Your task to perform on an android device: Open calendar and show me the second week of next month Image 0: 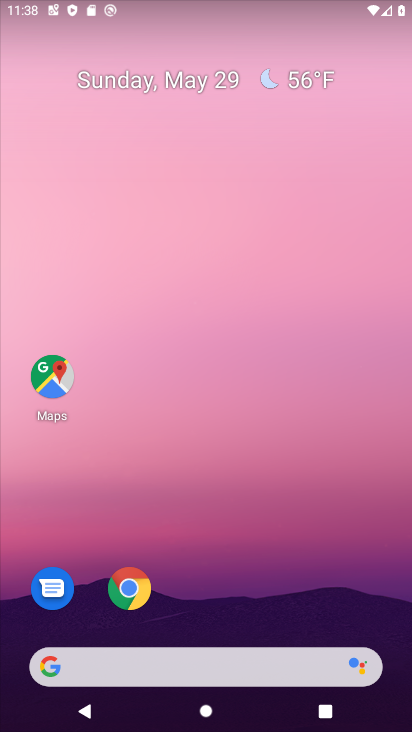
Step 0: drag from (276, 512) to (261, 52)
Your task to perform on an android device: Open calendar and show me the second week of next month Image 1: 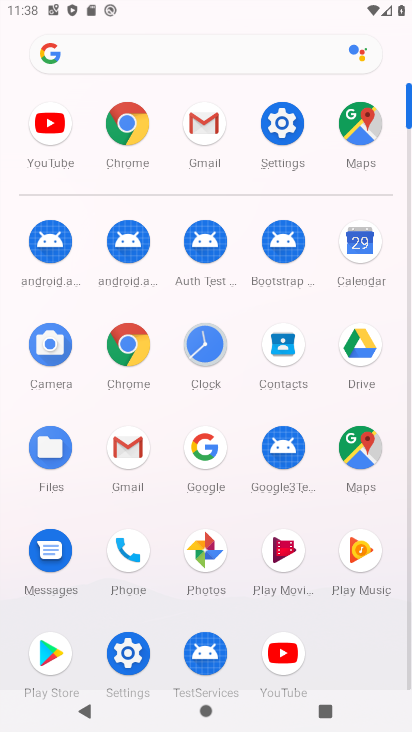
Step 1: click (349, 262)
Your task to perform on an android device: Open calendar and show me the second week of next month Image 2: 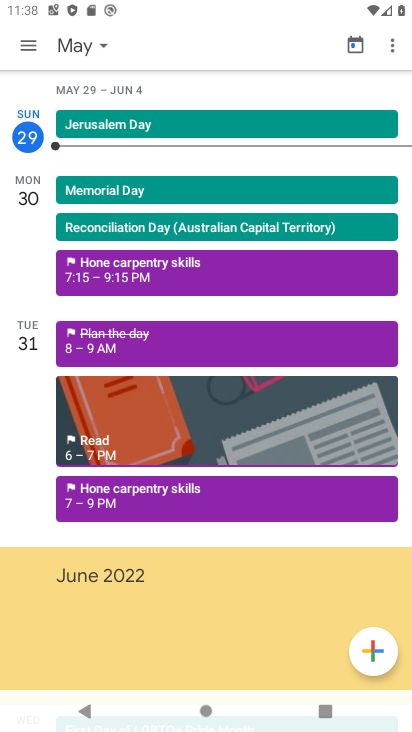
Step 2: click (71, 60)
Your task to perform on an android device: Open calendar and show me the second week of next month Image 3: 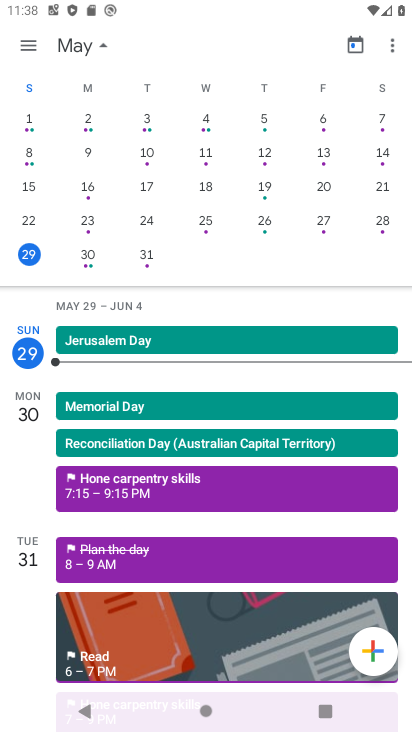
Step 3: drag from (311, 217) to (7, 310)
Your task to perform on an android device: Open calendar and show me the second week of next month Image 4: 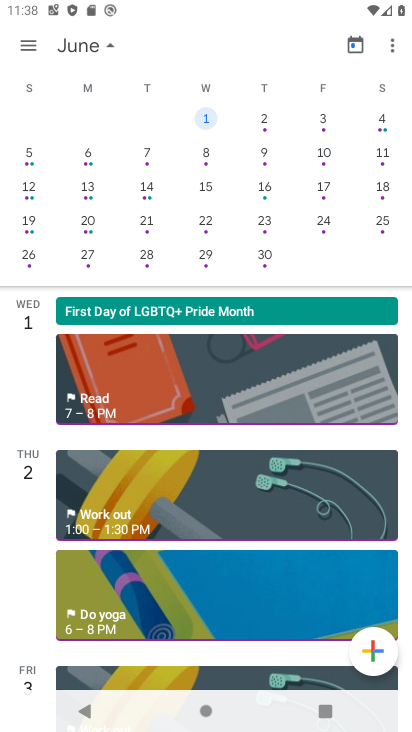
Step 4: click (150, 190)
Your task to perform on an android device: Open calendar and show me the second week of next month Image 5: 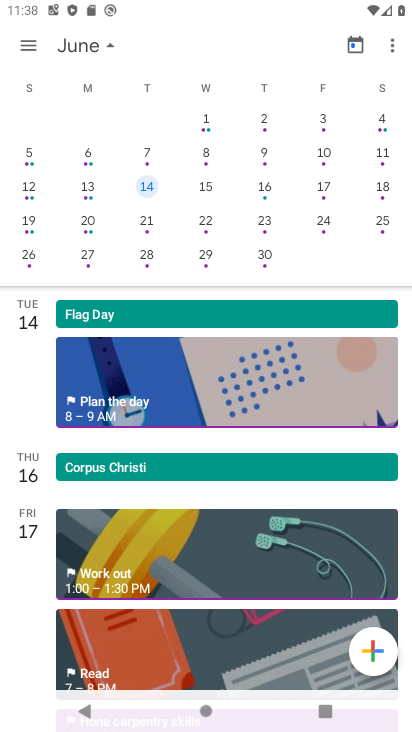
Step 5: task complete